Your task to perform on an android device: Open sound settings Image 0: 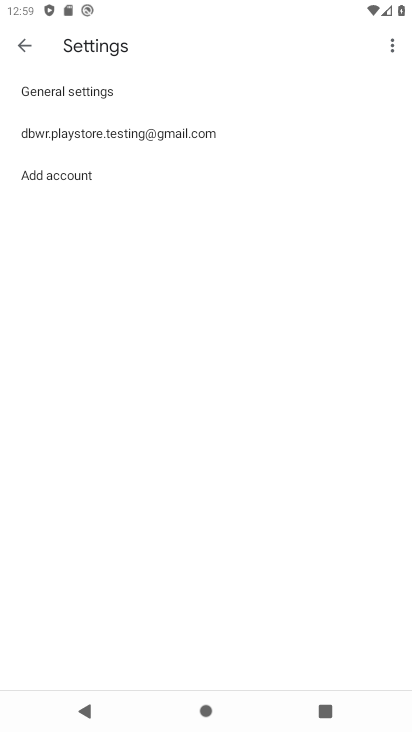
Step 0: drag from (145, 666) to (326, 37)
Your task to perform on an android device: Open sound settings Image 1: 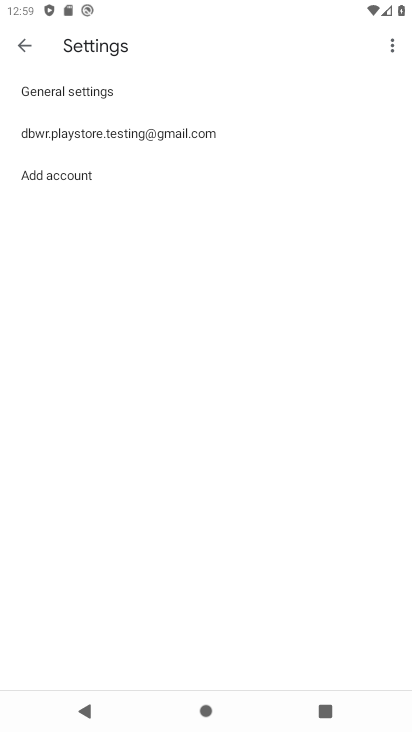
Step 1: press home button
Your task to perform on an android device: Open sound settings Image 2: 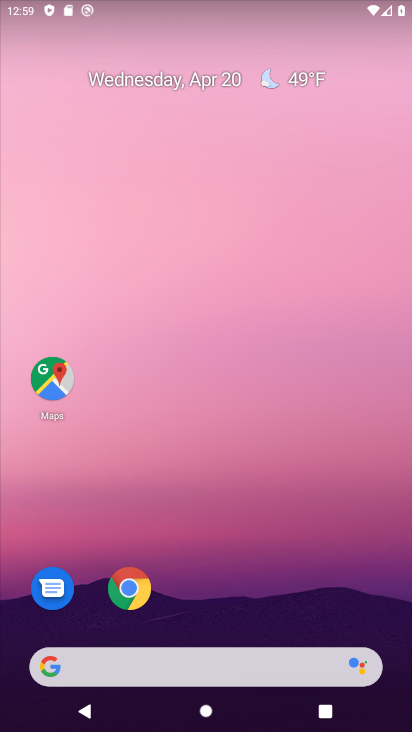
Step 2: drag from (168, 659) to (279, 66)
Your task to perform on an android device: Open sound settings Image 3: 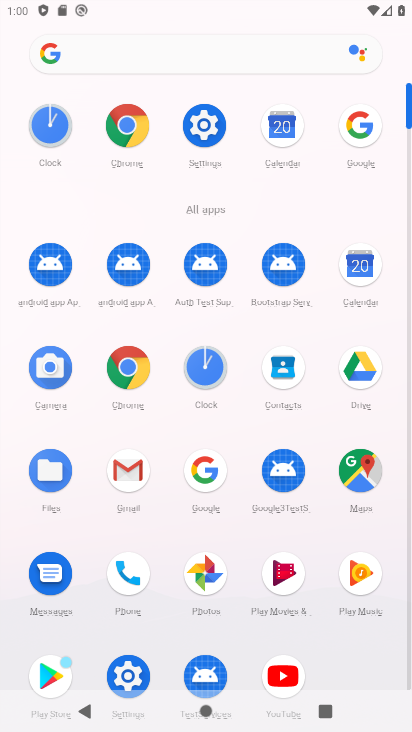
Step 3: click (203, 120)
Your task to perform on an android device: Open sound settings Image 4: 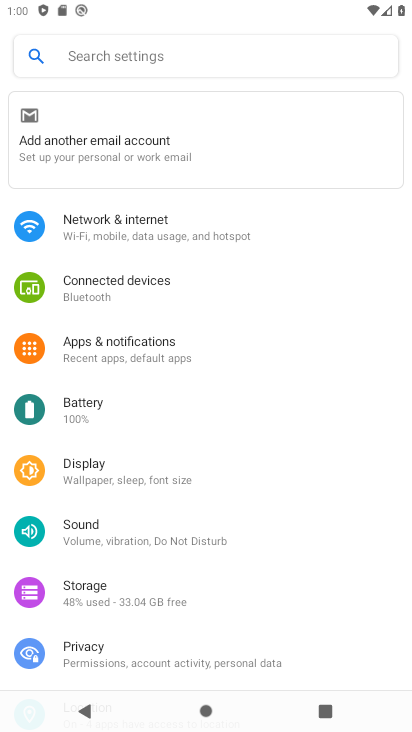
Step 4: click (83, 536)
Your task to perform on an android device: Open sound settings Image 5: 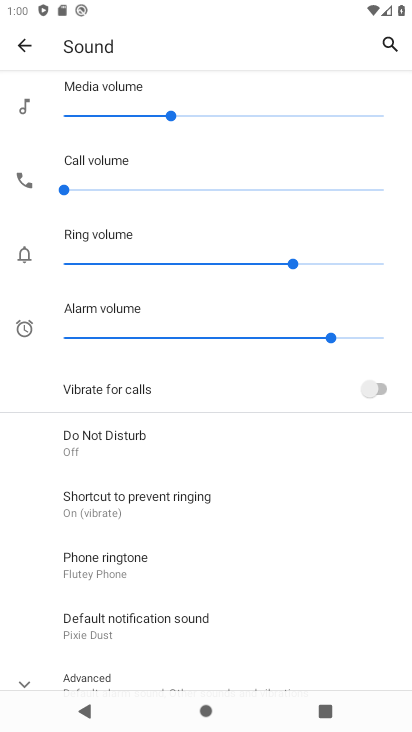
Step 5: task complete